Your task to perform on an android device: Check the news Image 0: 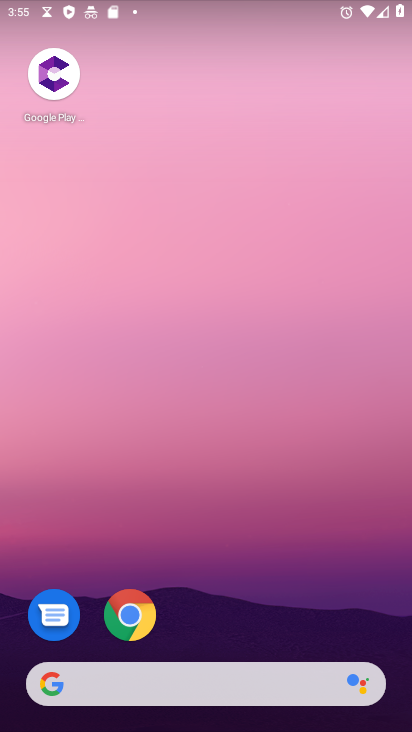
Step 0: drag from (277, 628) to (213, 176)
Your task to perform on an android device: Check the news Image 1: 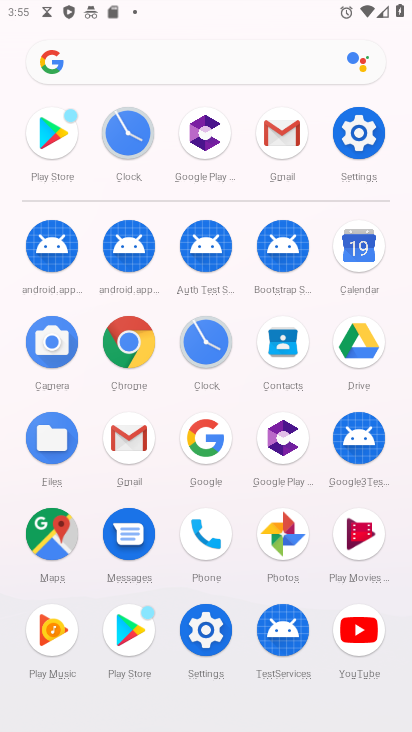
Step 1: press back button
Your task to perform on an android device: Check the news Image 2: 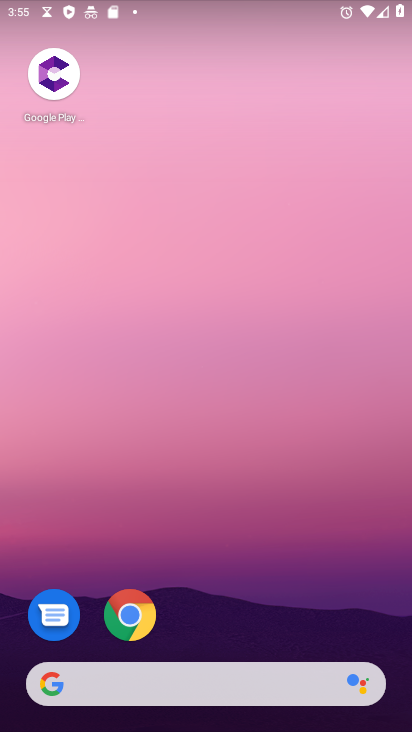
Step 2: drag from (3, 211) to (398, 549)
Your task to perform on an android device: Check the news Image 3: 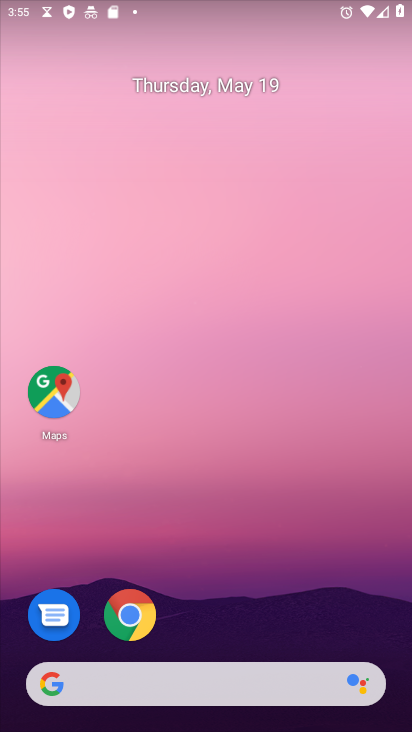
Step 3: drag from (10, 205) to (402, 497)
Your task to perform on an android device: Check the news Image 4: 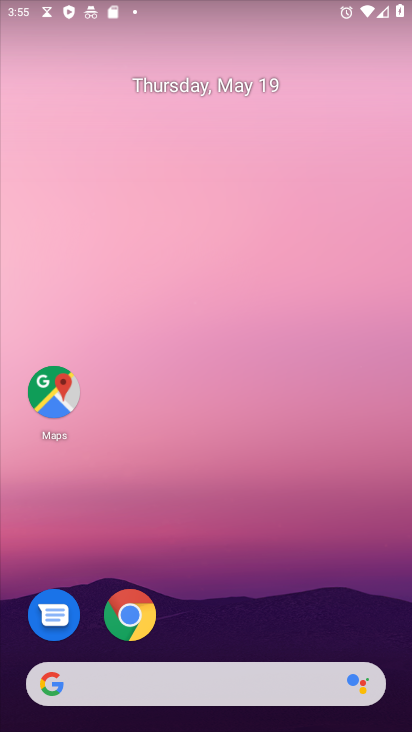
Step 4: drag from (1, 244) to (374, 466)
Your task to perform on an android device: Check the news Image 5: 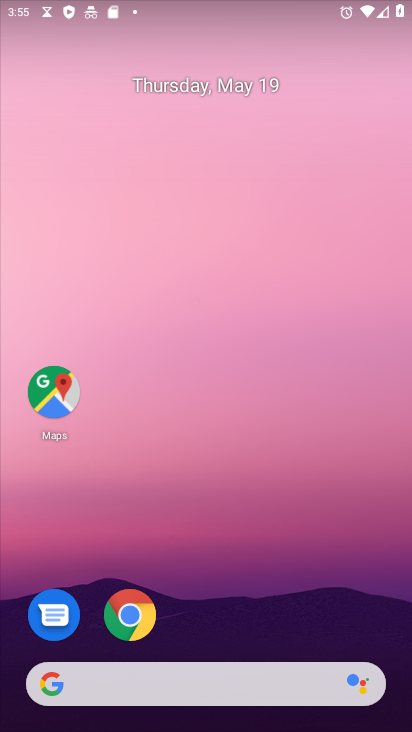
Step 5: drag from (11, 240) to (401, 563)
Your task to perform on an android device: Check the news Image 6: 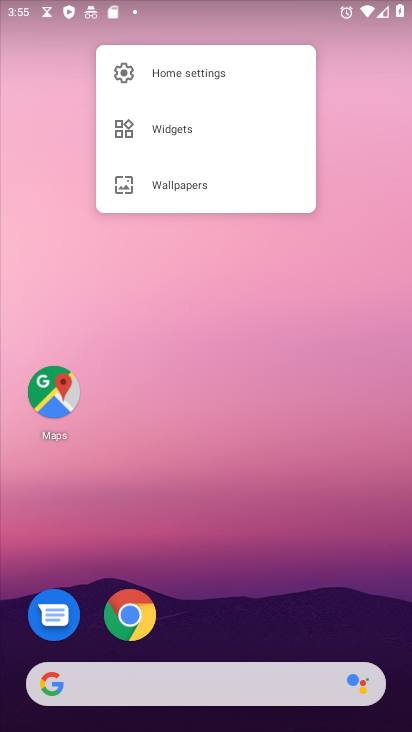
Step 6: drag from (5, 231) to (385, 528)
Your task to perform on an android device: Check the news Image 7: 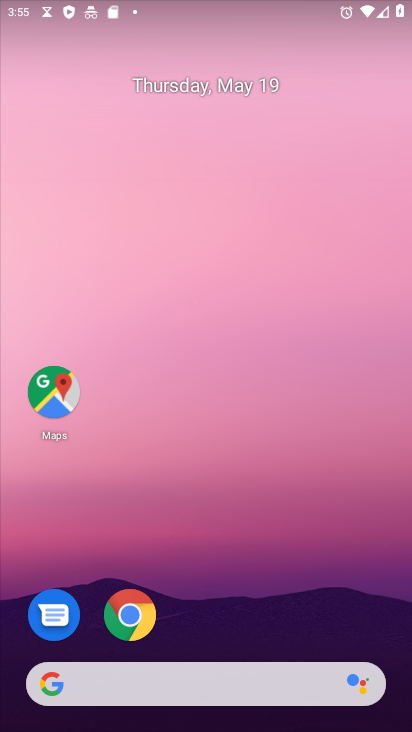
Step 7: drag from (9, 259) to (394, 650)
Your task to perform on an android device: Check the news Image 8: 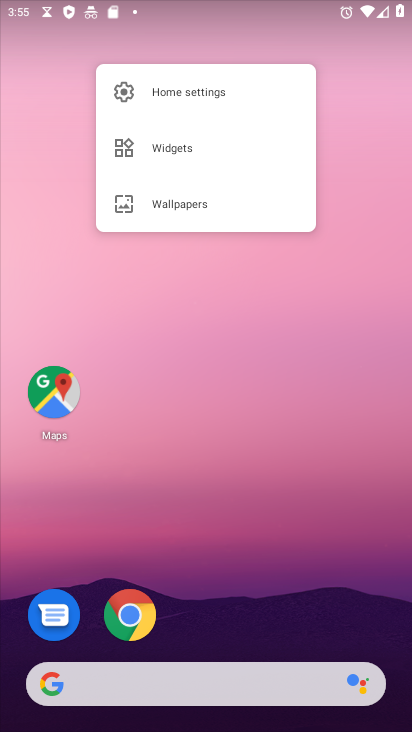
Step 8: drag from (21, 235) to (373, 497)
Your task to perform on an android device: Check the news Image 9: 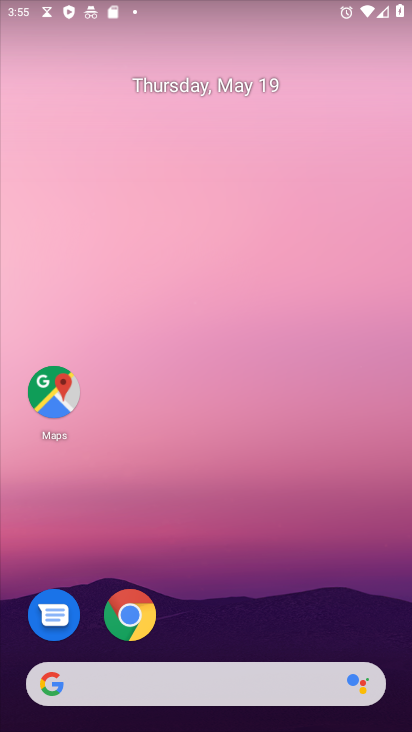
Step 9: drag from (296, 361) to (372, 442)
Your task to perform on an android device: Check the news Image 10: 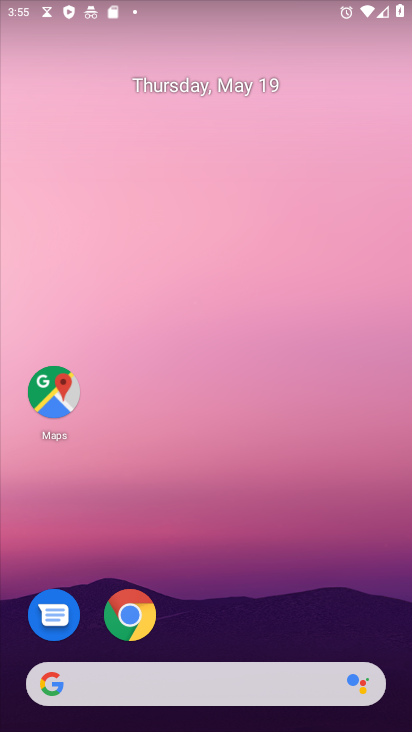
Step 10: drag from (13, 216) to (408, 617)
Your task to perform on an android device: Check the news Image 11: 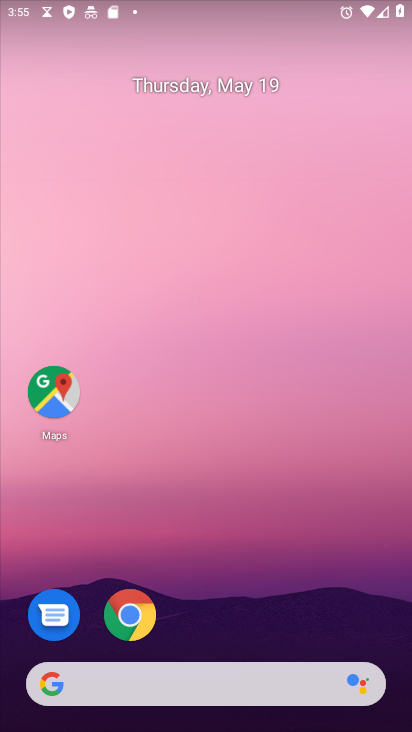
Step 11: drag from (10, 249) to (393, 578)
Your task to perform on an android device: Check the news Image 12: 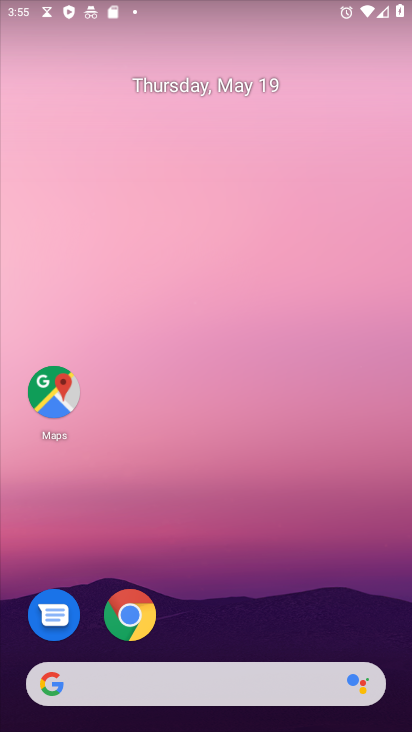
Step 12: drag from (12, 241) to (399, 478)
Your task to perform on an android device: Check the news Image 13: 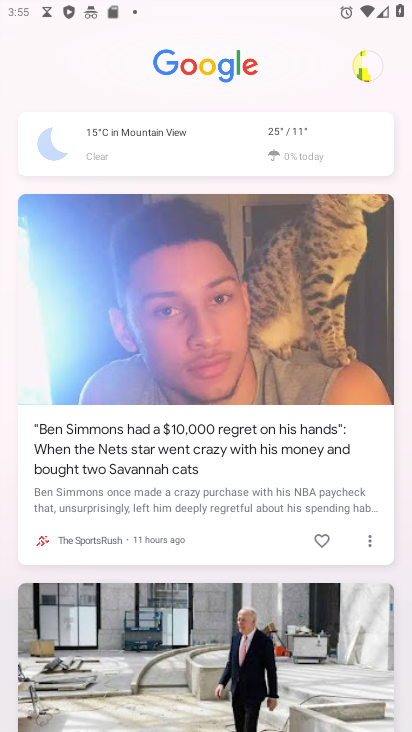
Step 13: click (205, 152)
Your task to perform on an android device: Check the news Image 14: 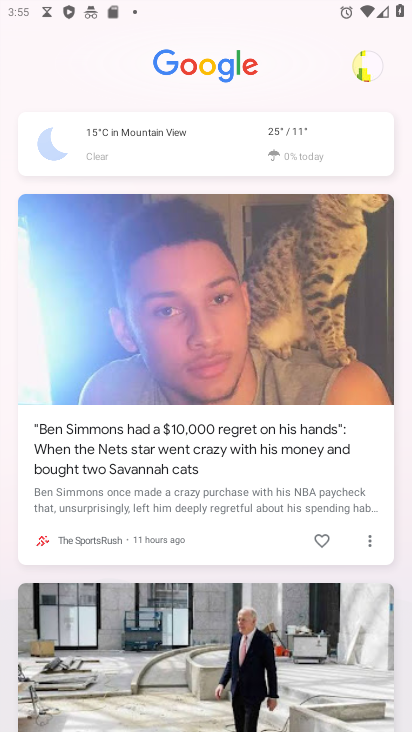
Step 14: click (207, 153)
Your task to perform on an android device: Check the news Image 15: 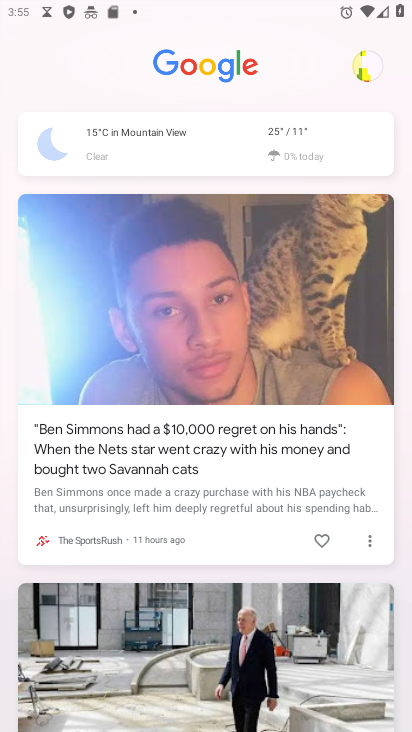
Step 15: click (209, 155)
Your task to perform on an android device: Check the news Image 16: 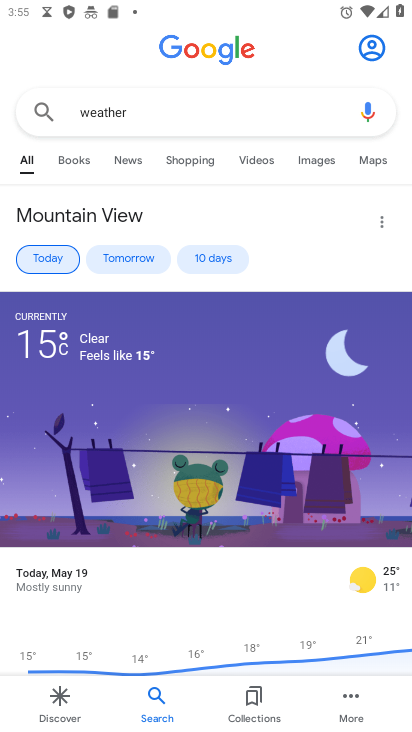
Step 16: task complete